Your task to perform on an android device: Open Youtube and go to "Your channel" Image 0: 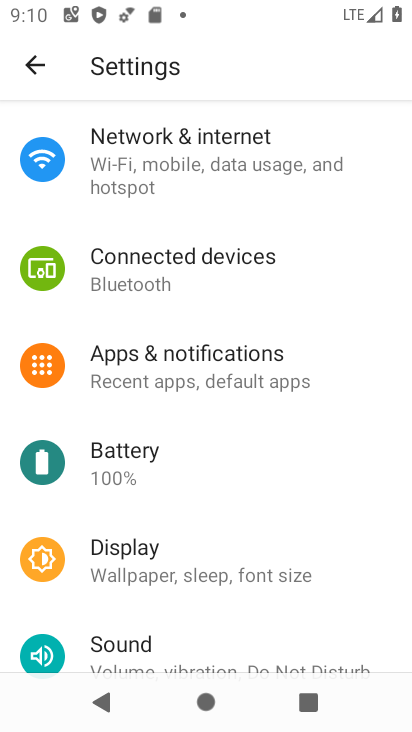
Step 0: press home button
Your task to perform on an android device: Open Youtube and go to "Your channel" Image 1: 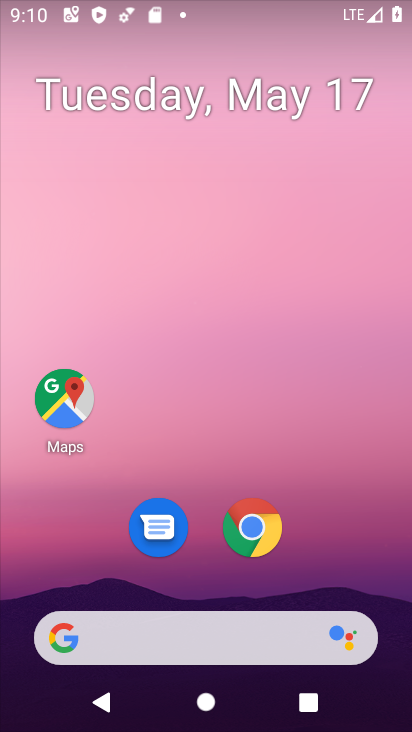
Step 1: drag from (168, 626) to (312, 160)
Your task to perform on an android device: Open Youtube and go to "Your channel" Image 2: 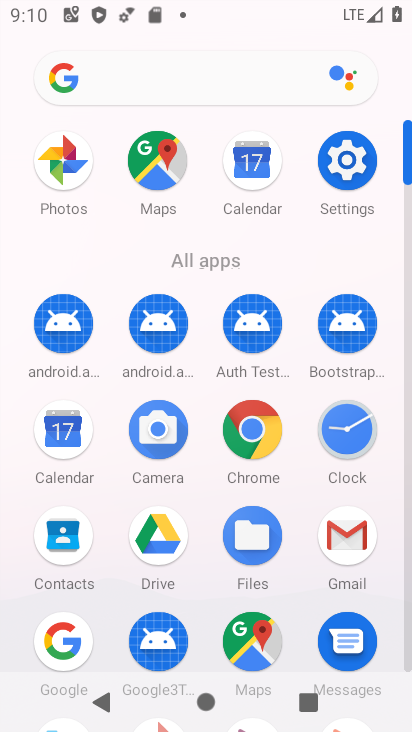
Step 2: drag from (234, 533) to (365, 133)
Your task to perform on an android device: Open Youtube and go to "Your channel" Image 3: 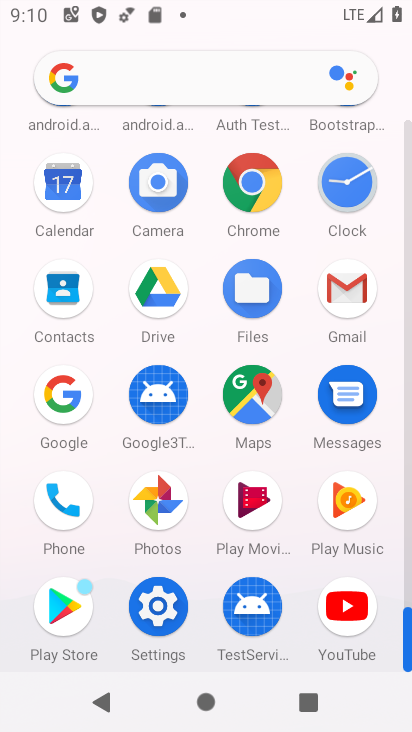
Step 3: click (345, 606)
Your task to perform on an android device: Open Youtube and go to "Your channel" Image 4: 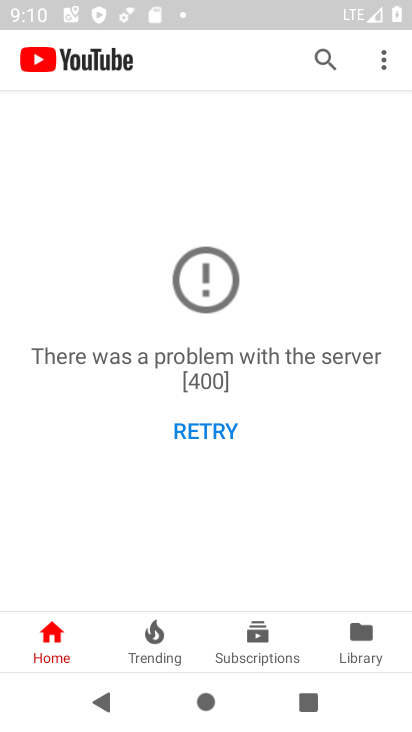
Step 4: click (213, 428)
Your task to perform on an android device: Open Youtube and go to "Your channel" Image 5: 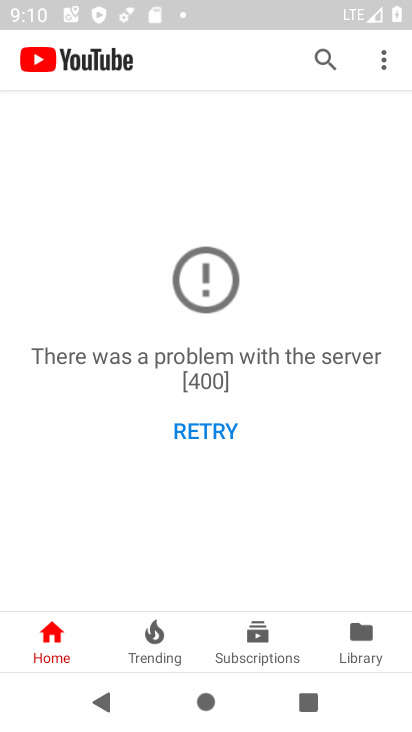
Step 5: click (195, 425)
Your task to perform on an android device: Open Youtube and go to "Your channel" Image 6: 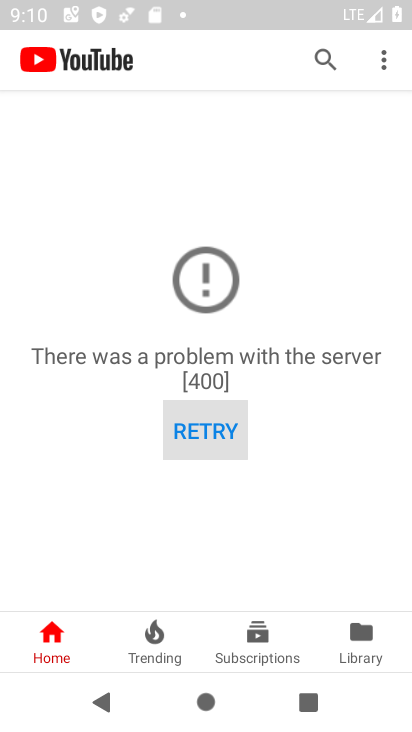
Step 6: click (195, 425)
Your task to perform on an android device: Open Youtube and go to "Your channel" Image 7: 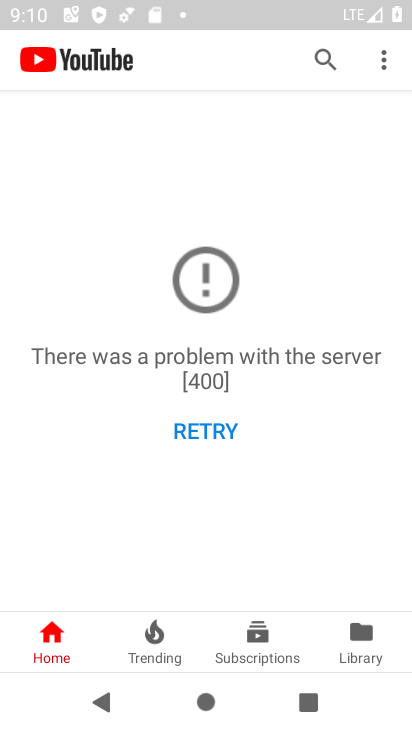
Step 7: click (381, 62)
Your task to perform on an android device: Open Youtube and go to "Your channel" Image 8: 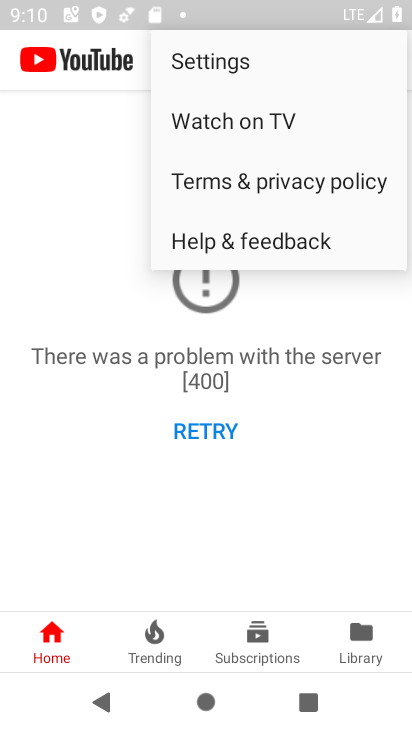
Step 8: click (255, 60)
Your task to perform on an android device: Open Youtube and go to "Your channel" Image 9: 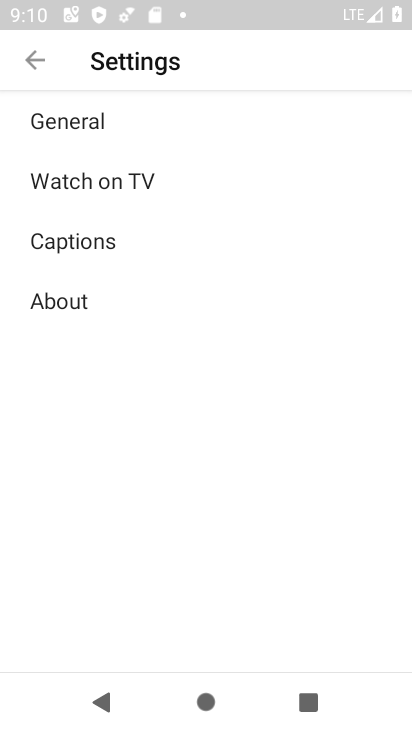
Step 9: click (37, 60)
Your task to perform on an android device: Open Youtube and go to "Your channel" Image 10: 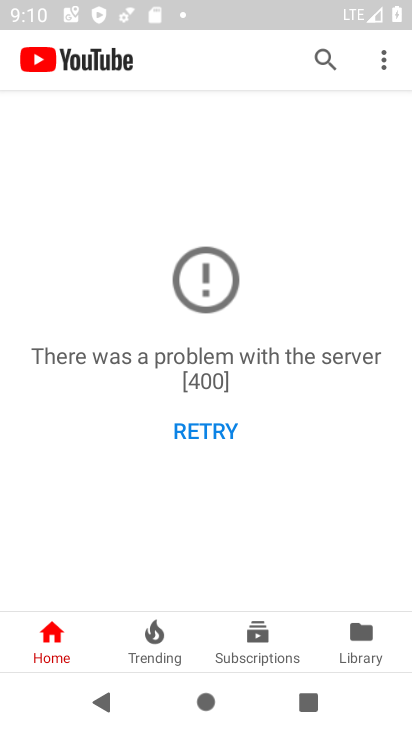
Step 10: task complete